Your task to perform on an android device: snooze an email in the gmail app Image 0: 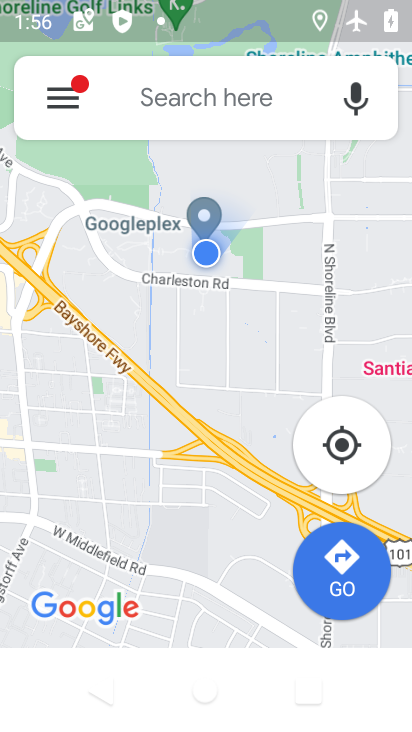
Step 0: press home button
Your task to perform on an android device: snooze an email in the gmail app Image 1: 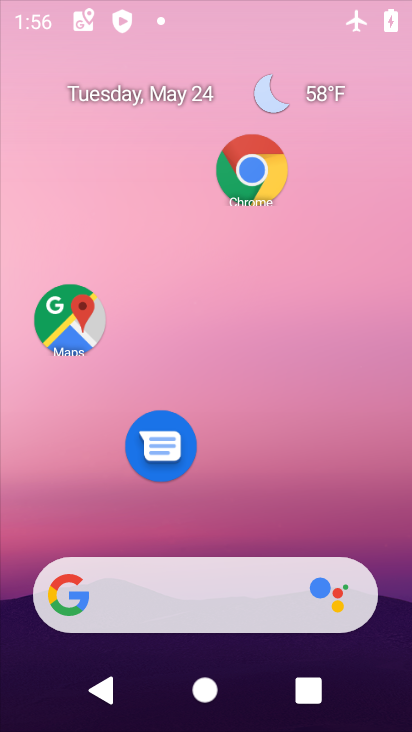
Step 1: drag from (245, 627) to (256, 195)
Your task to perform on an android device: snooze an email in the gmail app Image 2: 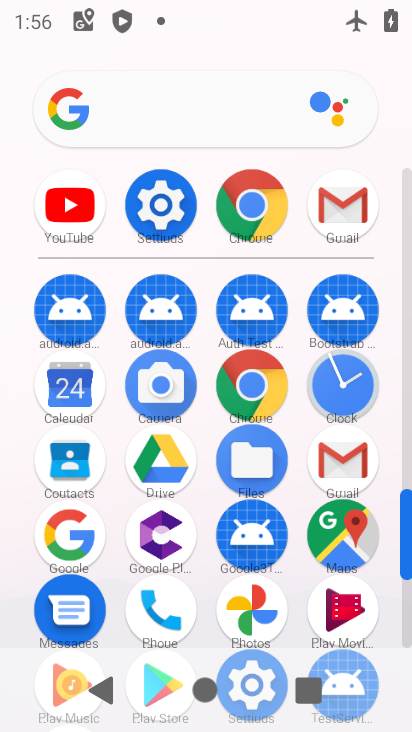
Step 2: click (340, 462)
Your task to perform on an android device: snooze an email in the gmail app Image 3: 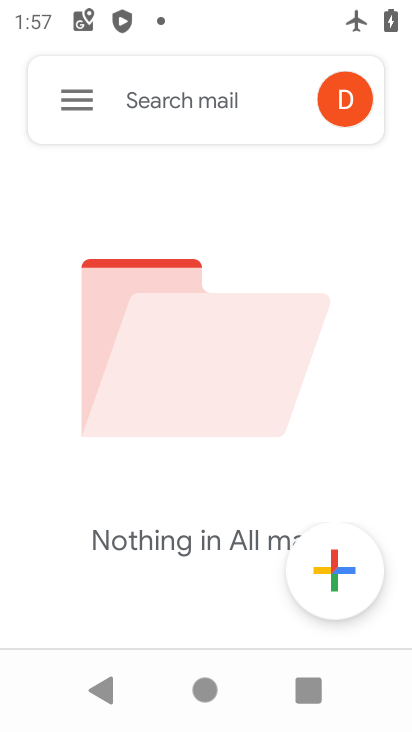
Step 3: click (79, 113)
Your task to perform on an android device: snooze an email in the gmail app Image 4: 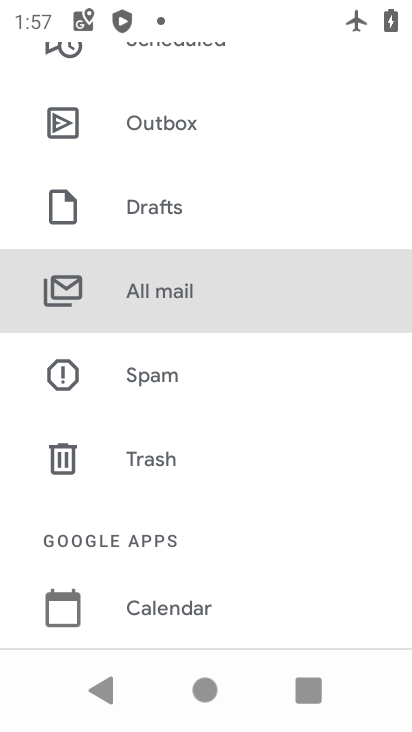
Step 4: click (210, 297)
Your task to perform on an android device: snooze an email in the gmail app Image 5: 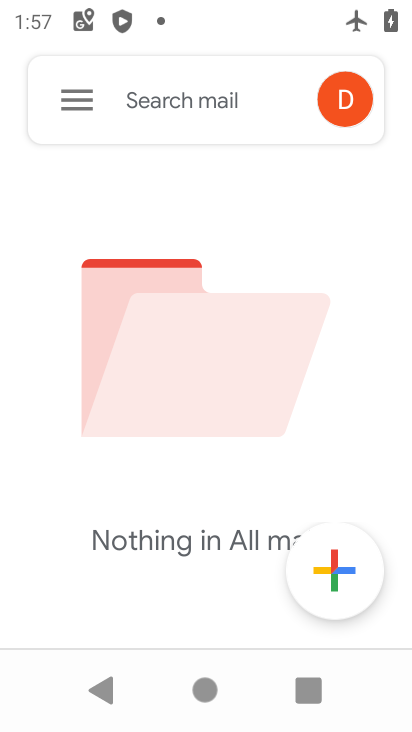
Step 5: task complete